Your task to perform on an android device: check data usage Image 0: 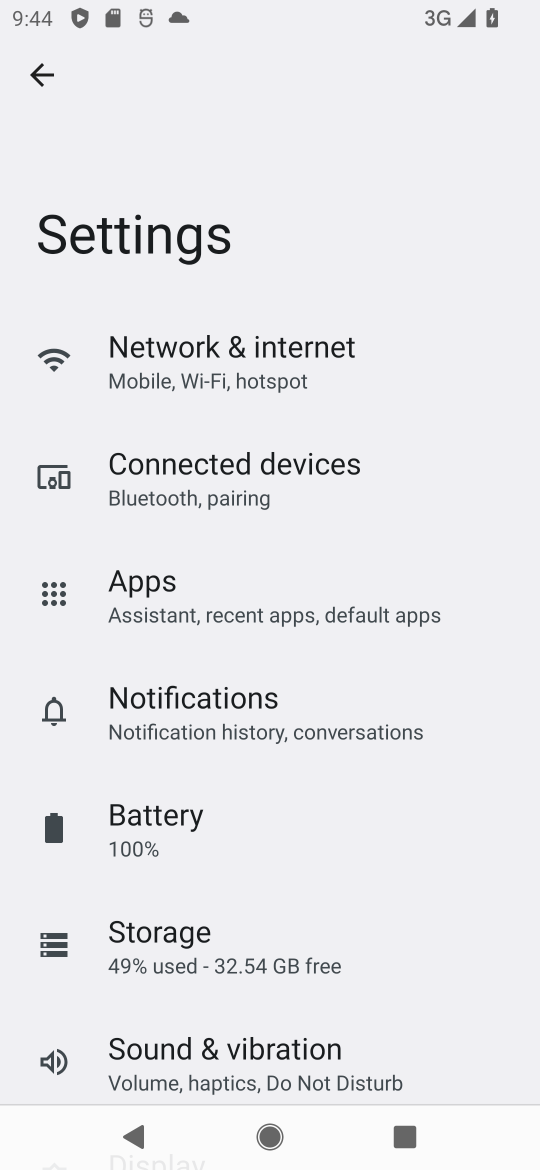
Step 0: press home button
Your task to perform on an android device: check data usage Image 1: 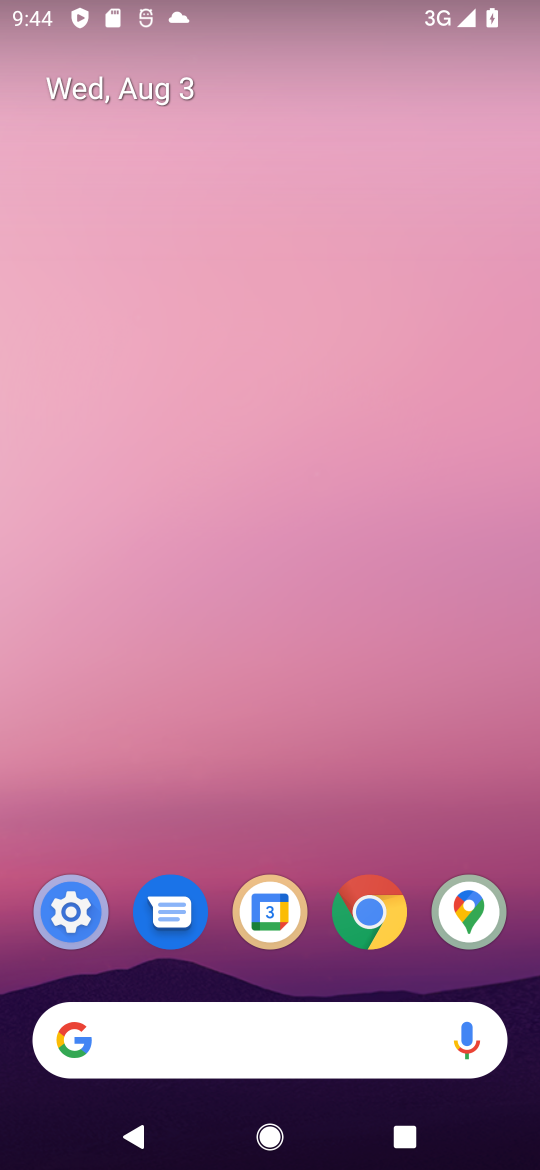
Step 1: drag from (426, 767) to (375, 17)
Your task to perform on an android device: check data usage Image 2: 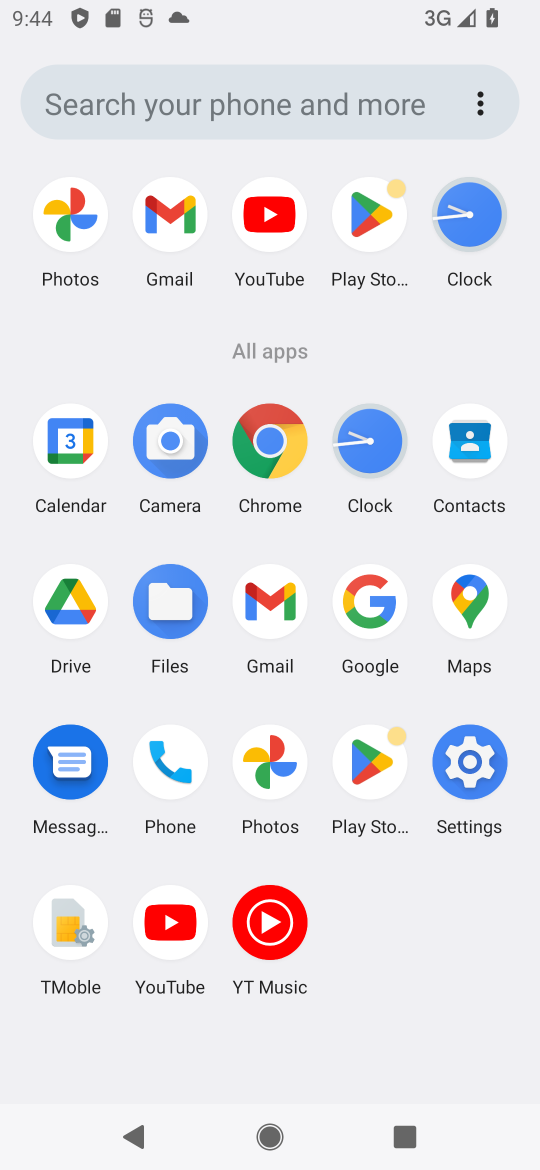
Step 2: click (471, 752)
Your task to perform on an android device: check data usage Image 3: 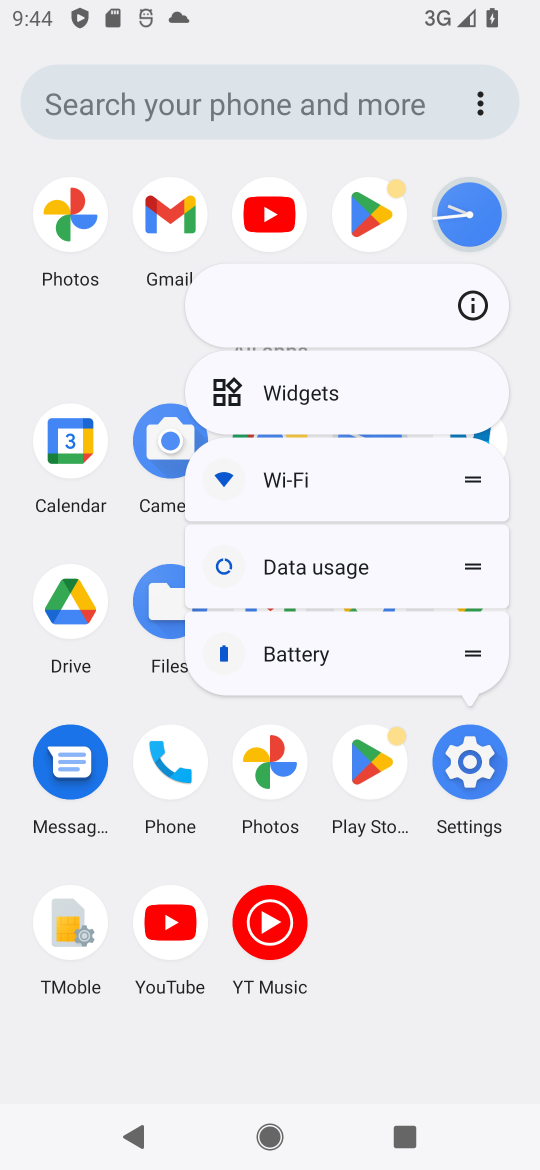
Step 3: click (482, 769)
Your task to perform on an android device: check data usage Image 4: 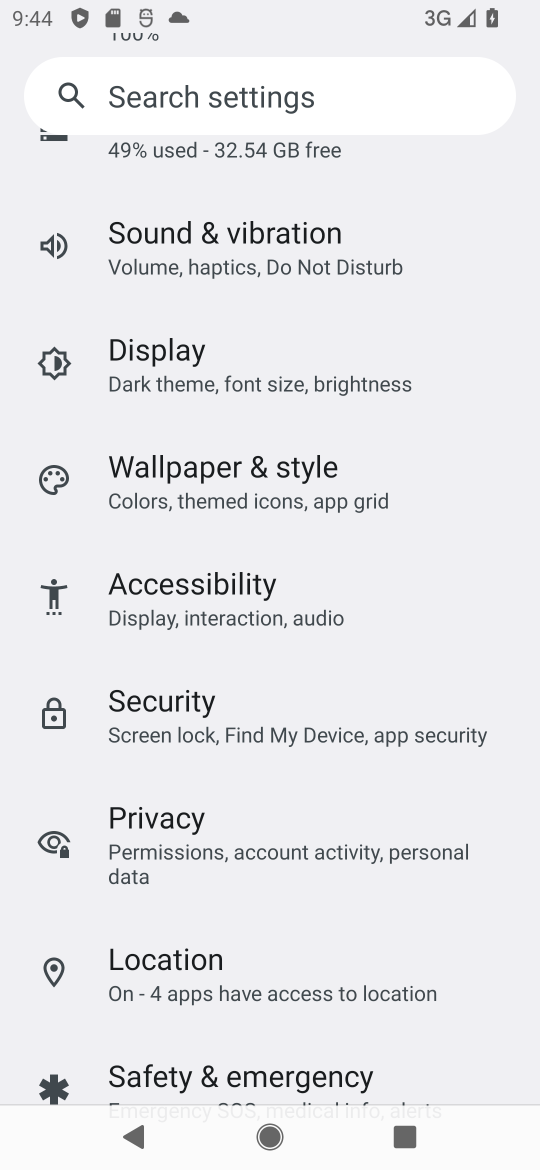
Step 4: drag from (404, 367) to (352, 1040)
Your task to perform on an android device: check data usage Image 5: 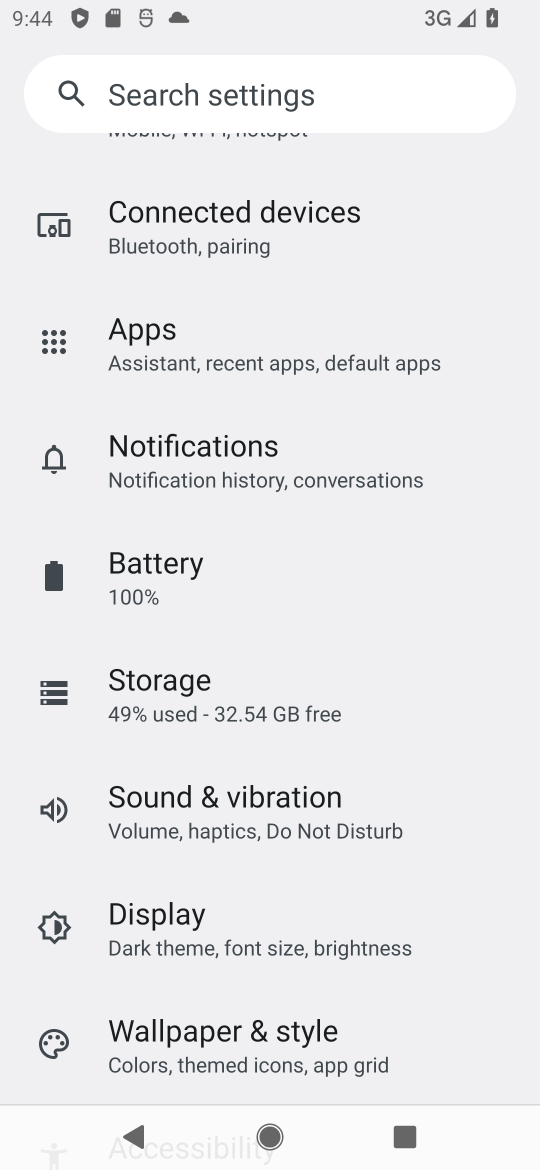
Step 5: drag from (225, 507) to (345, 1024)
Your task to perform on an android device: check data usage Image 6: 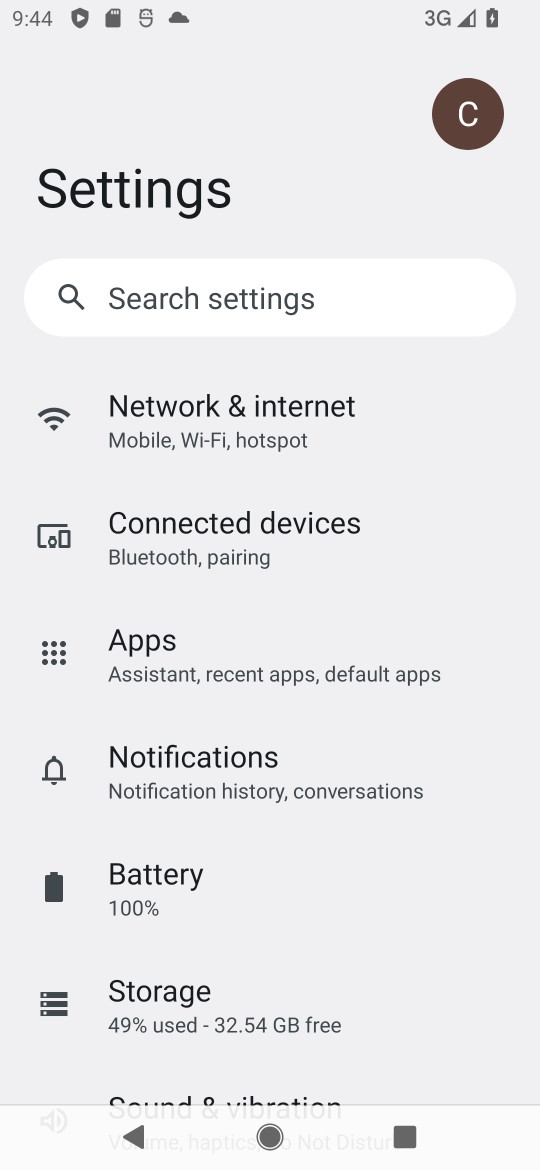
Step 6: click (210, 438)
Your task to perform on an android device: check data usage Image 7: 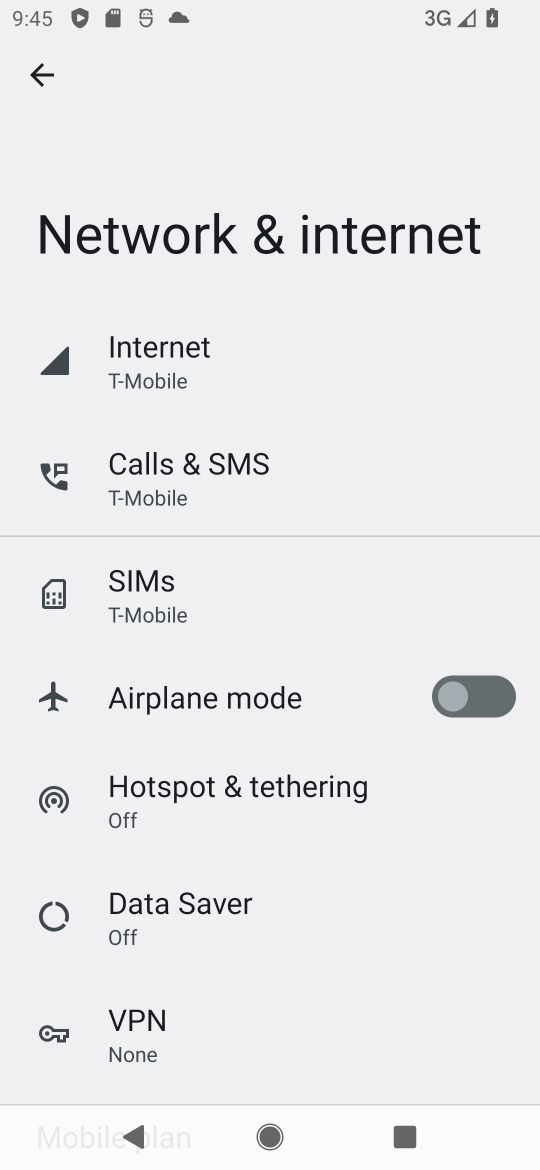
Step 7: click (172, 926)
Your task to perform on an android device: check data usage Image 8: 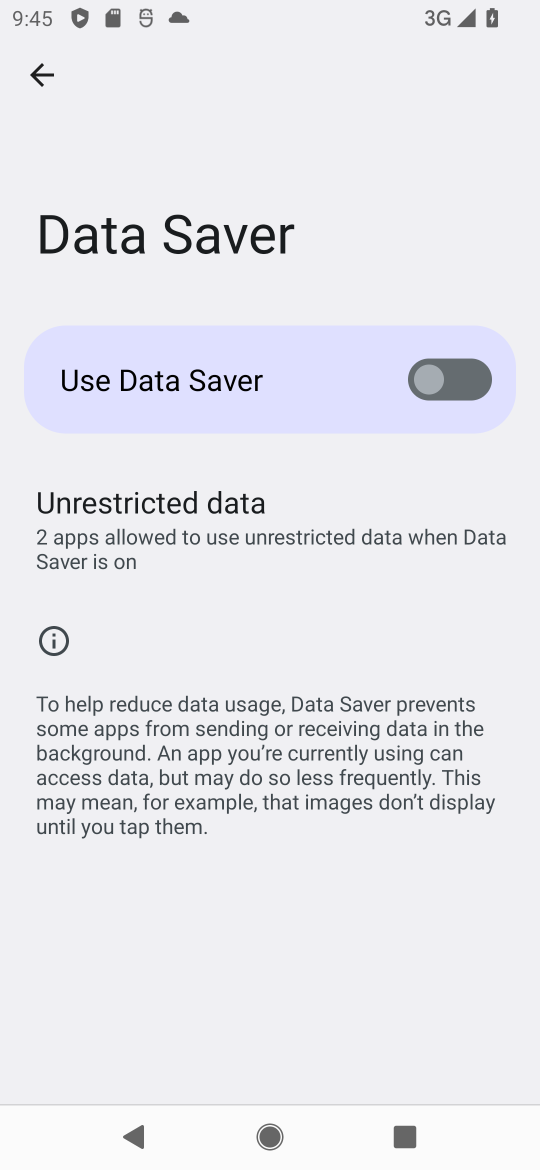
Step 8: task complete